Your task to perform on an android device: turn on priority inbox in the gmail app Image 0: 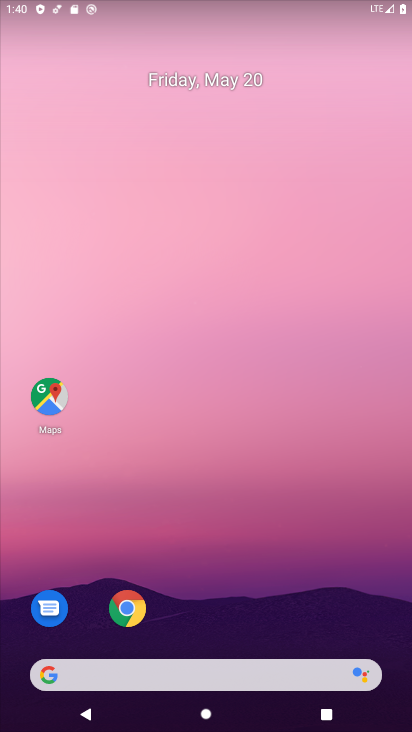
Step 0: drag from (264, 606) to (199, 117)
Your task to perform on an android device: turn on priority inbox in the gmail app Image 1: 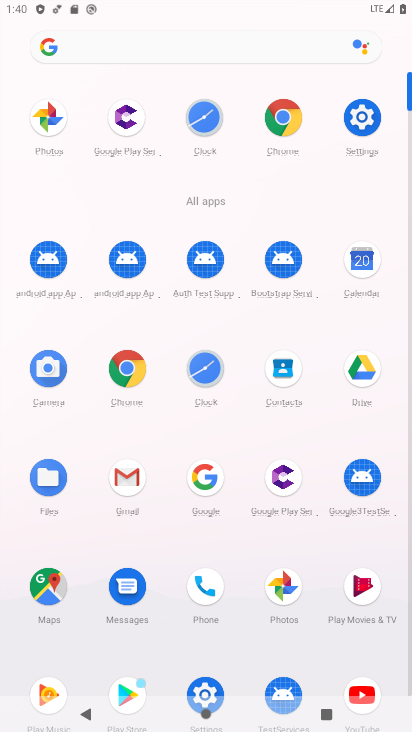
Step 1: click (123, 476)
Your task to perform on an android device: turn on priority inbox in the gmail app Image 2: 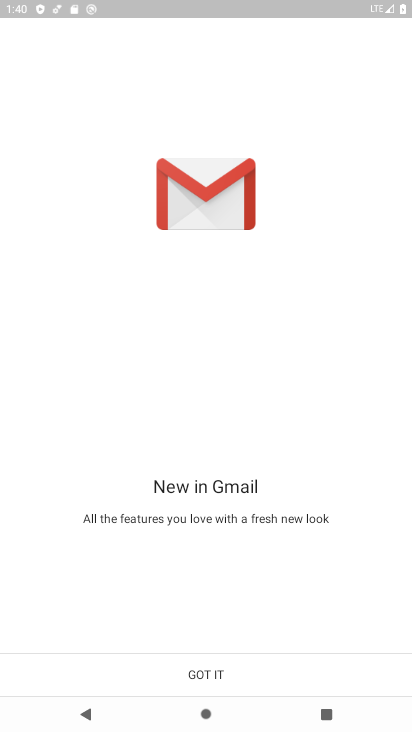
Step 2: click (198, 669)
Your task to perform on an android device: turn on priority inbox in the gmail app Image 3: 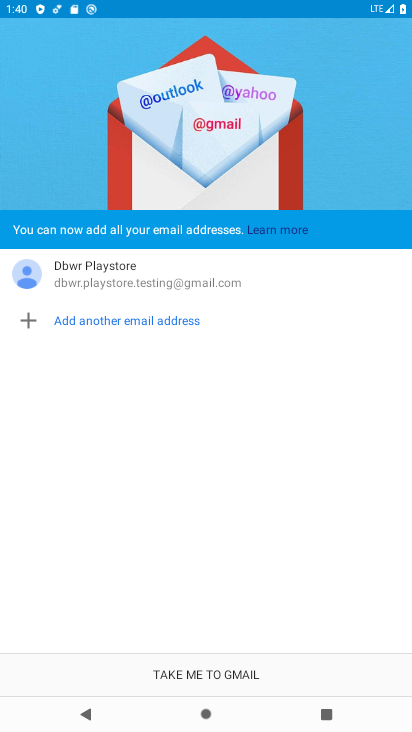
Step 3: click (198, 669)
Your task to perform on an android device: turn on priority inbox in the gmail app Image 4: 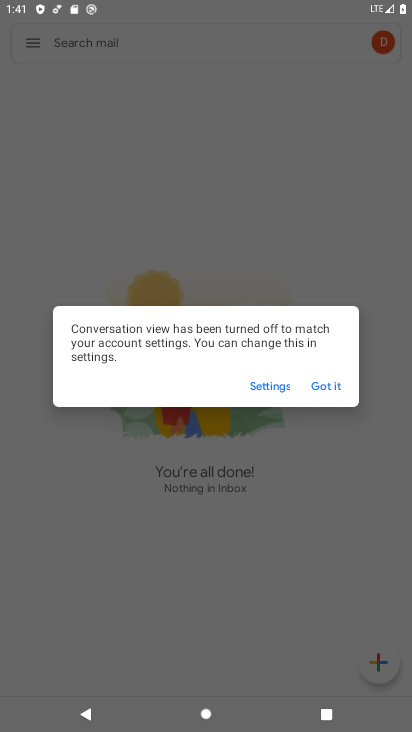
Step 4: click (324, 381)
Your task to perform on an android device: turn on priority inbox in the gmail app Image 5: 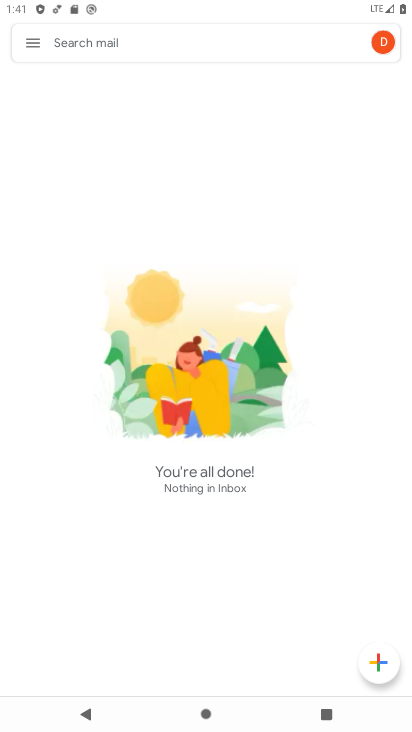
Step 5: click (32, 42)
Your task to perform on an android device: turn on priority inbox in the gmail app Image 6: 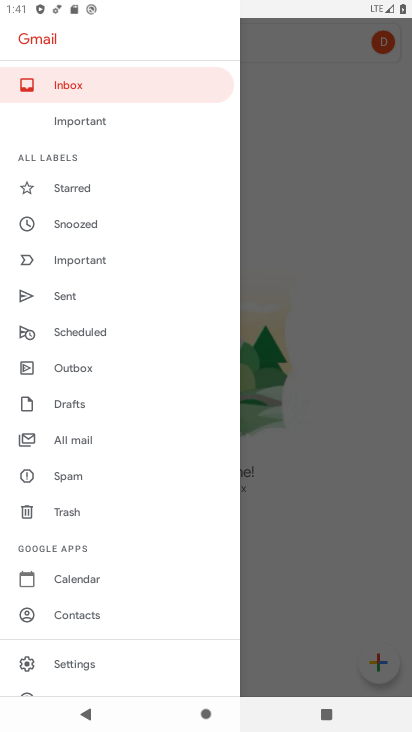
Step 6: click (88, 666)
Your task to perform on an android device: turn on priority inbox in the gmail app Image 7: 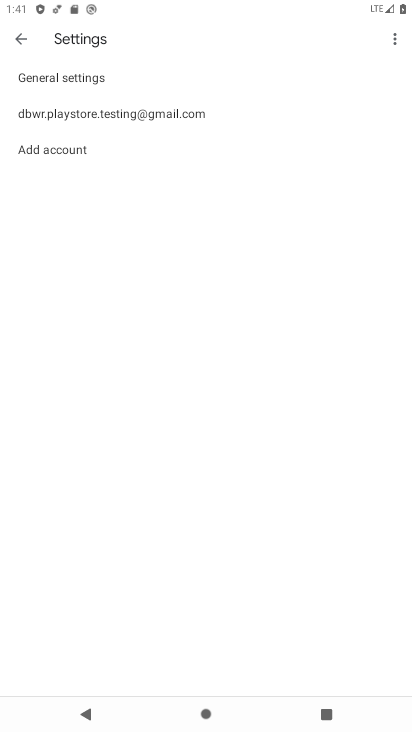
Step 7: click (83, 117)
Your task to perform on an android device: turn on priority inbox in the gmail app Image 8: 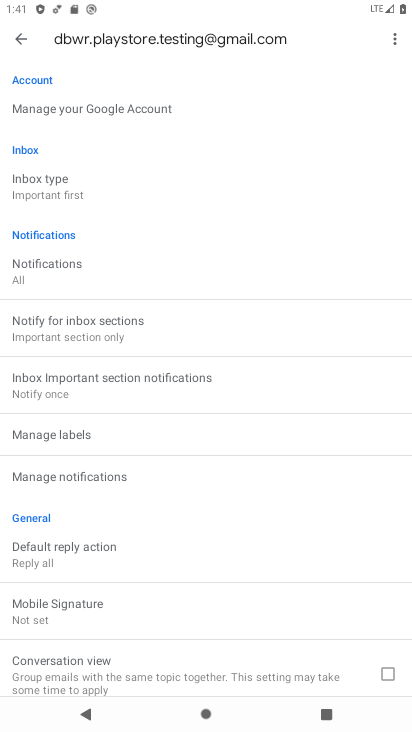
Step 8: click (54, 191)
Your task to perform on an android device: turn on priority inbox in the gmail app Image 9: 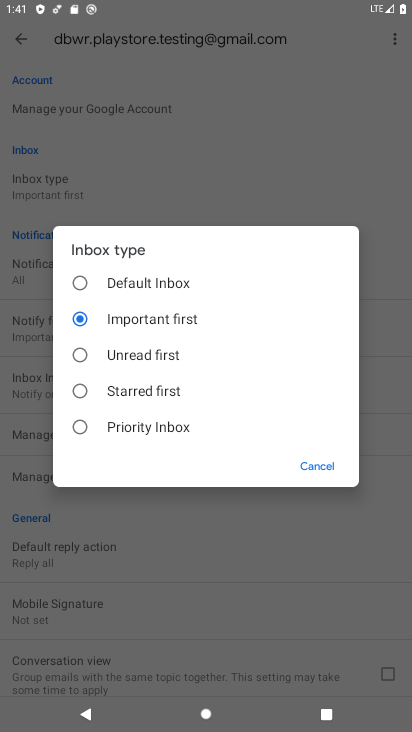
Step 9: click (75, 424)
Your task to perform on an android device: turn on priority inbox in the gmail app Image 10: 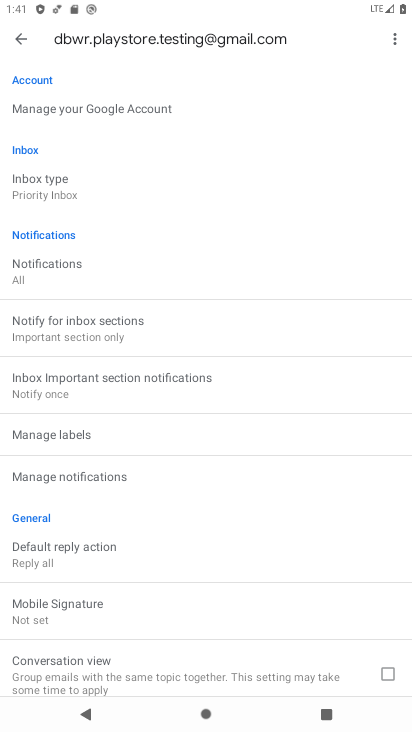
Step 10: task complete